Your task to perform on an android device: turn pop-ups off in chrome Image 0: 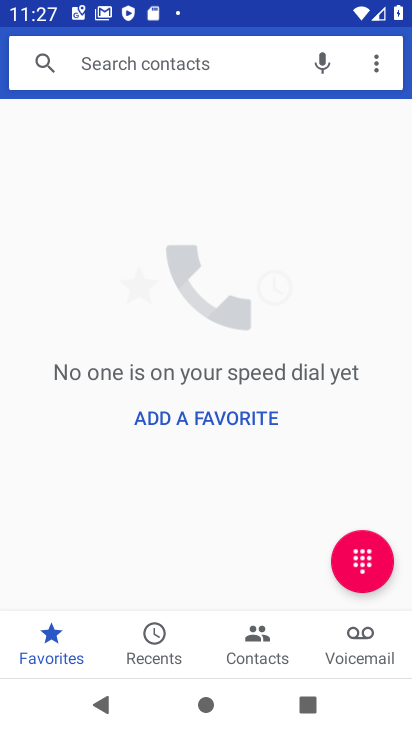
Step 0: press home button
Your task to perform on an android device: turn pop-ups off in chrome Image 1: 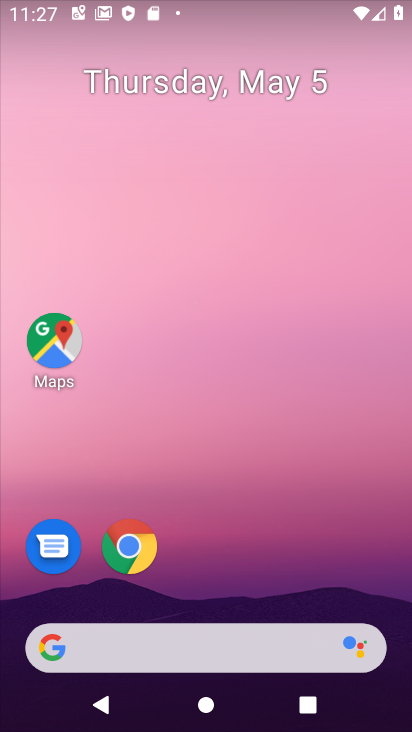
Step 1: drag from (222, 569) to (222, 164)
Your task to perform on an android device: turn pop-ups off in chrome Image 2: 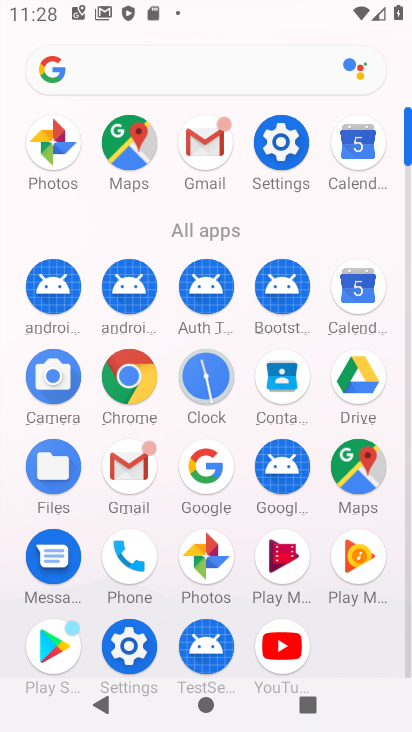
Step 2: click (129, 383)
Your task to perform on an android device: turn pop-ups off in chrome Image 3: 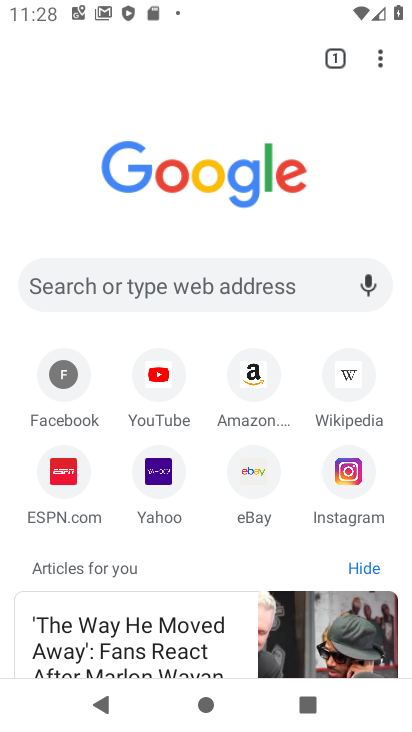
Step 3: click (388, 55)
Your task to perform on an android device: turn pop-ups off in chrome Image 4: 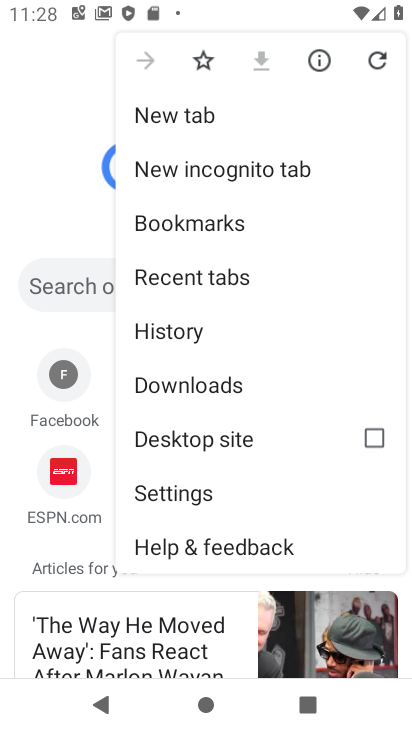
Step 4: click (171, 491)
Your task to perform on an android device: turn pop-ups off in chrome Image 5: 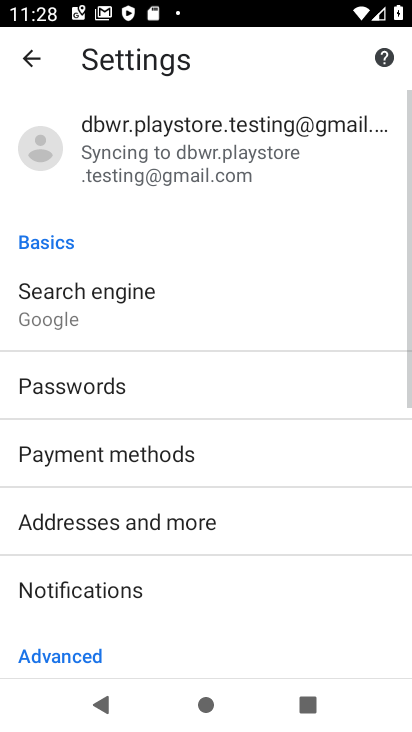
Step 5: drag from (203, 575) to (196, 247)
Your task to perform on an android device: turn pop-ups off in chrome Image 6: 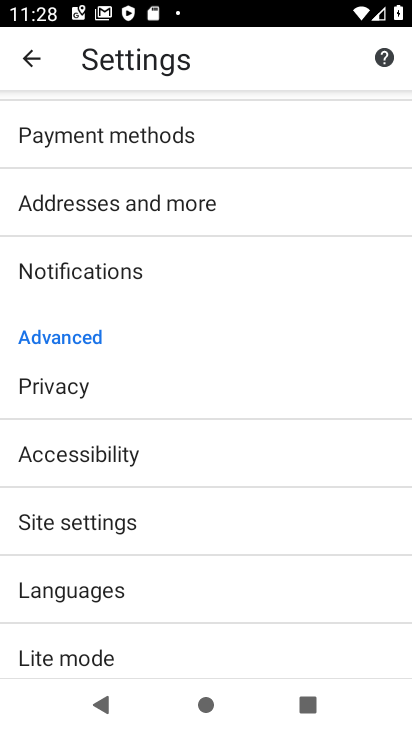
Step 6: click (147, 532)
Your task to perform on an android device: turn pop-ups off in chrome Image 7: 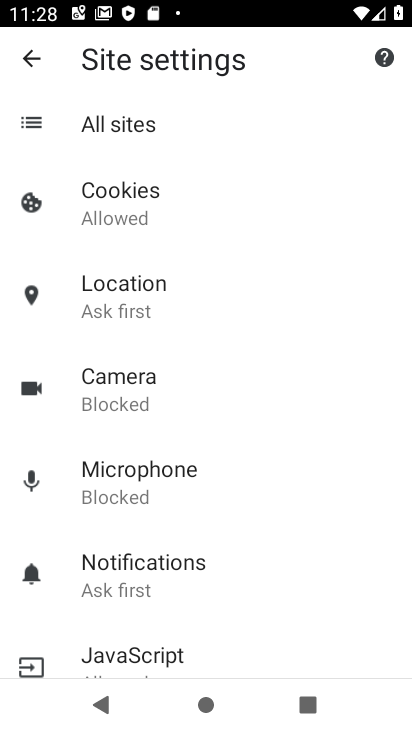
Step 7: drag from (238, 535) to (215, 306)
Your task to perform on an android device: turn pop-ups off in chrome Image 8: 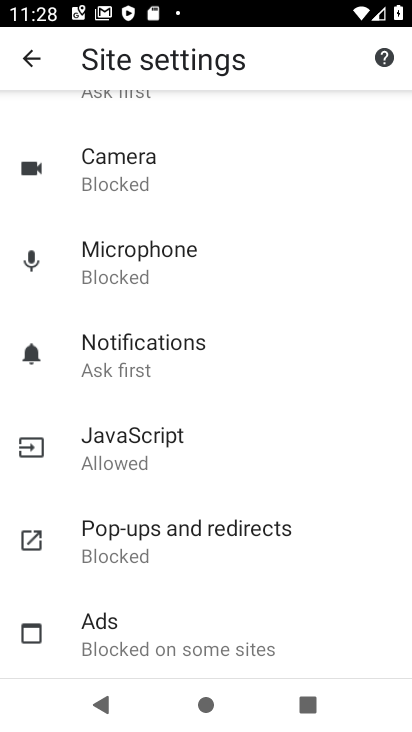
Step 8: click (207, 541)
Your task to perform on an android device: turn pop-ups off in chrome Image 9: 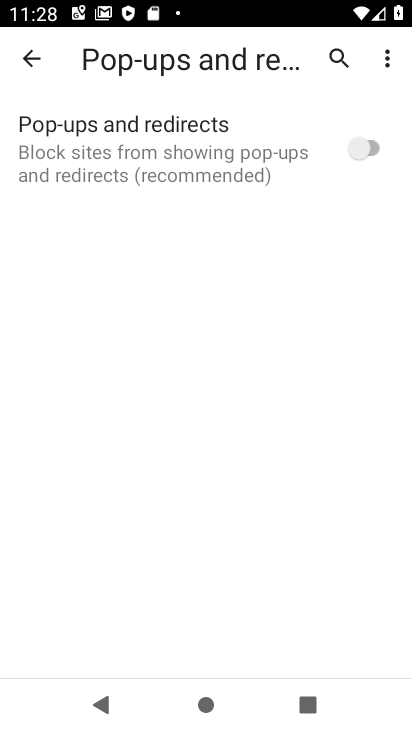
Step 9: task complete